Your task to perform on an android device: turn on showing notifications on the lock screen Image 0: 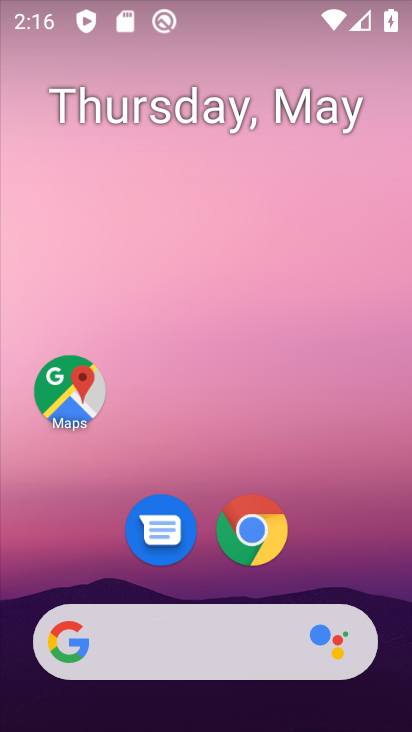
Step 0: press home button
Your task to perform on an android device: turn on showing notifications on the lock screen Image 1: 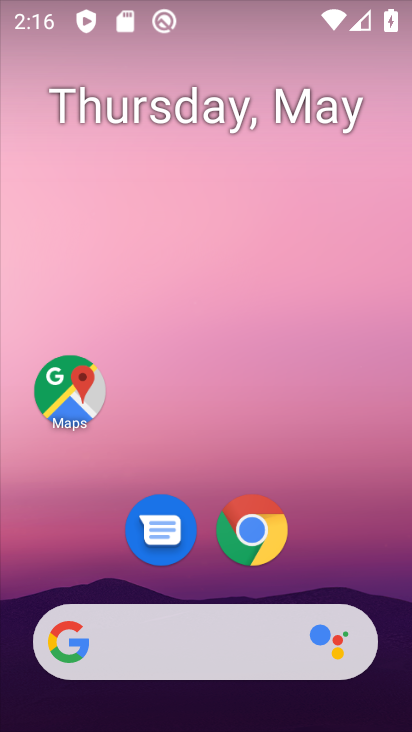
Step 1: drag from (183, 658) to (287, 236)
Your task to perform on an android device: turn on showing notifications on the lock screen Image 2: 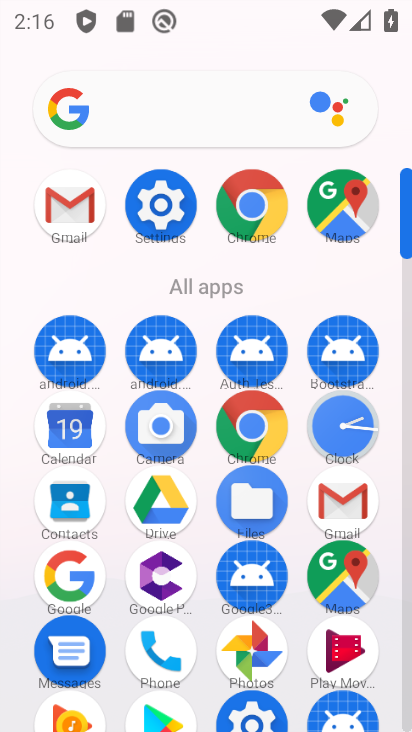
Step 2: click (169, 208)
Your task to perform on an android device: turn on showing notifications on the lock screen Image 3: 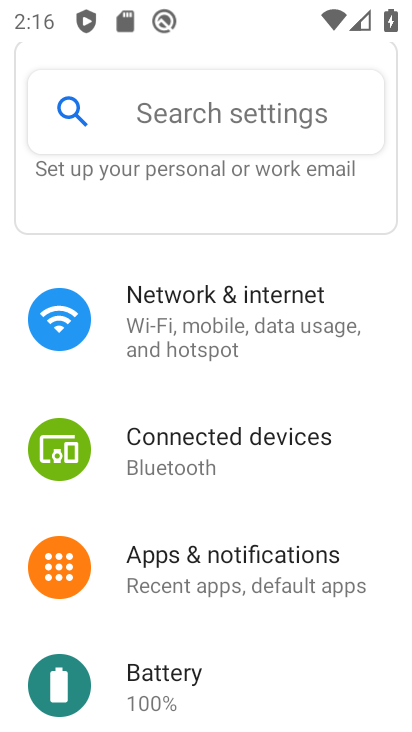
Step 3: click (264, 571)
Your task to perform on an android device: turn on showing notifications on the lock screen Image 4: 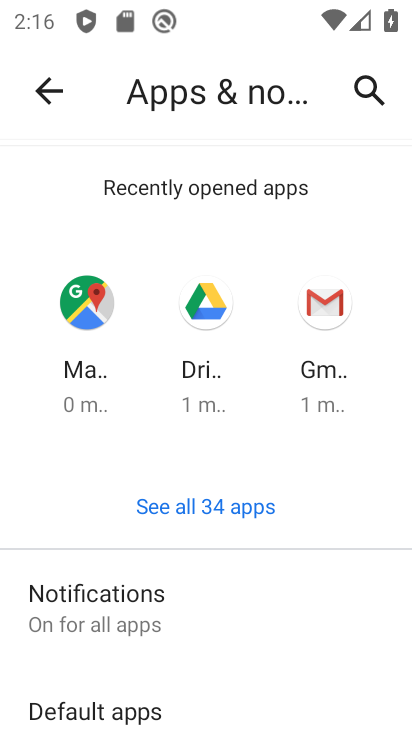
Step 4: click (132, 622)
Your task to perform on an android device: turn on showing notifications on the lock screen Image 5: 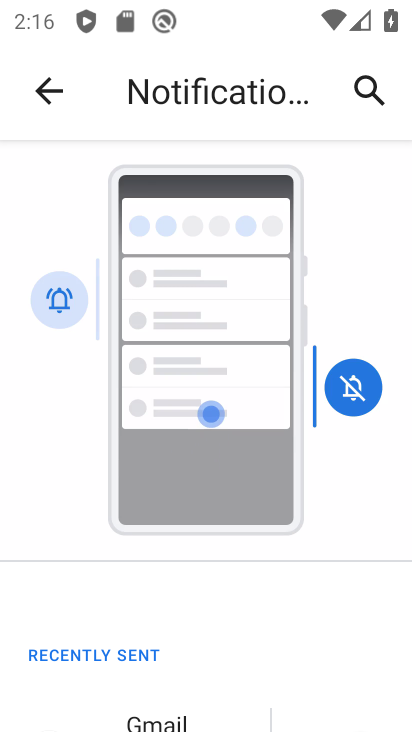
Step 5: drag from (225, 660) to (367, 114)
Your task to perform on an android device: turn on showing notifications on the lock screen Image 6: 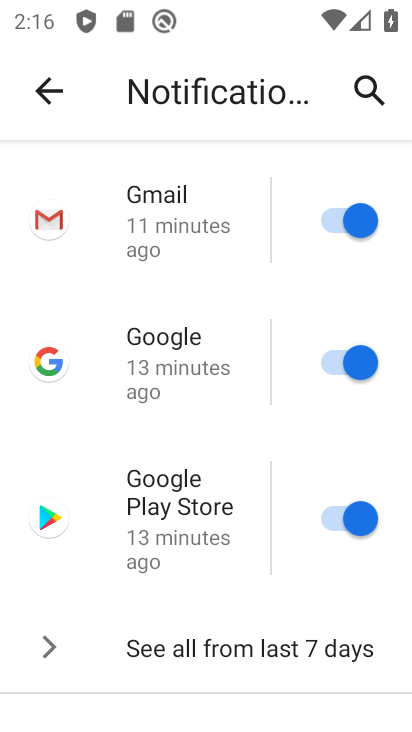
Step 6: drag from (238, 593) to (352, 208)
Your task to perform on an android device: turn on showing notifications on the lock screen Image 7: 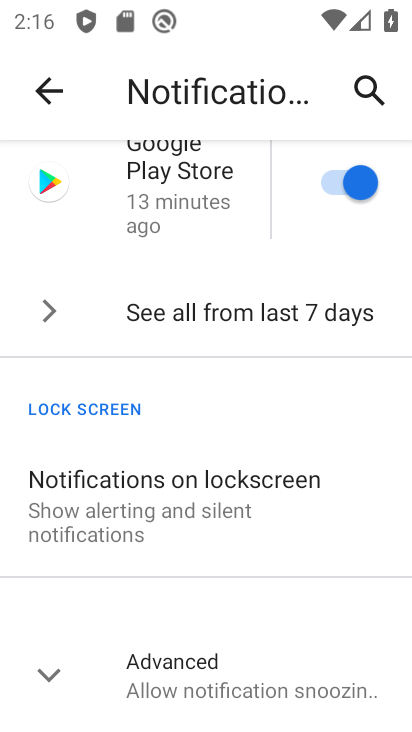
Step 7: click (199, 507)
Your task to perform on an android device: turn on showing notifications on the lock screen Image 8: 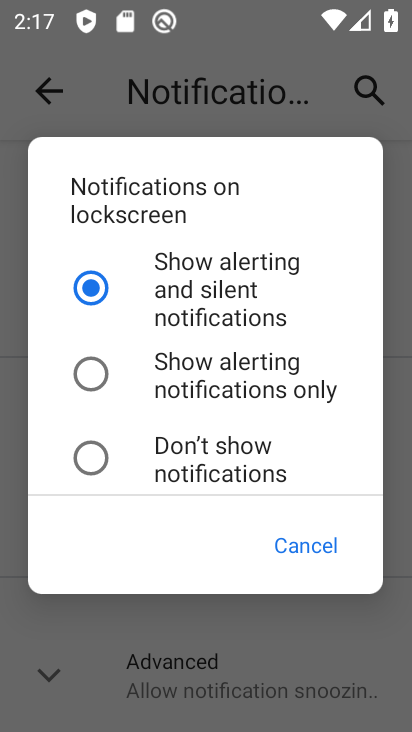
Step 8: task complete